Your task to perform on an android device: Open the web browser Image 0: 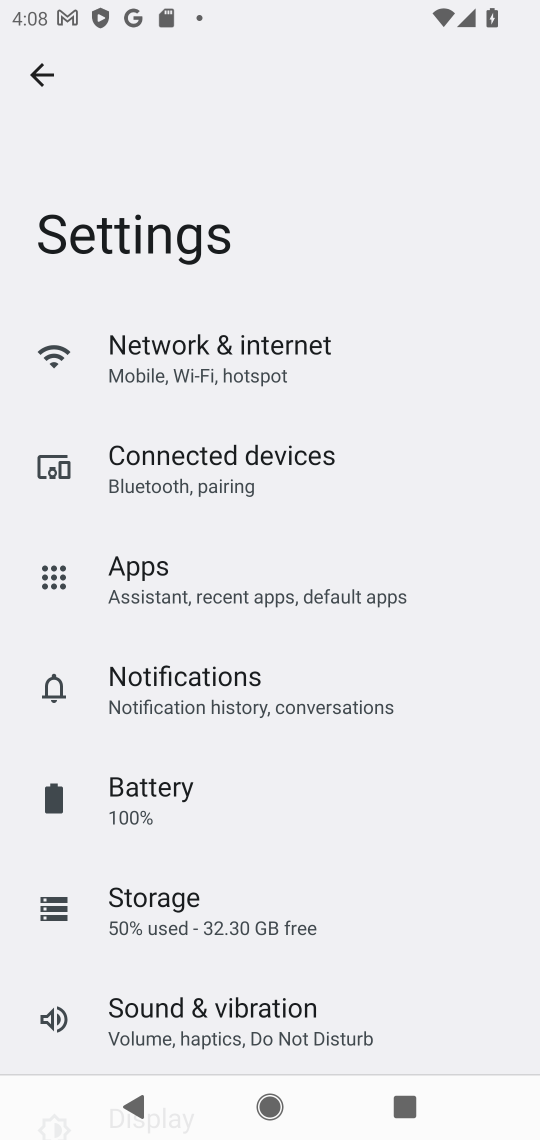
Step 0: press home button
Your task to perform on an android device: Open the web browser Image 1: 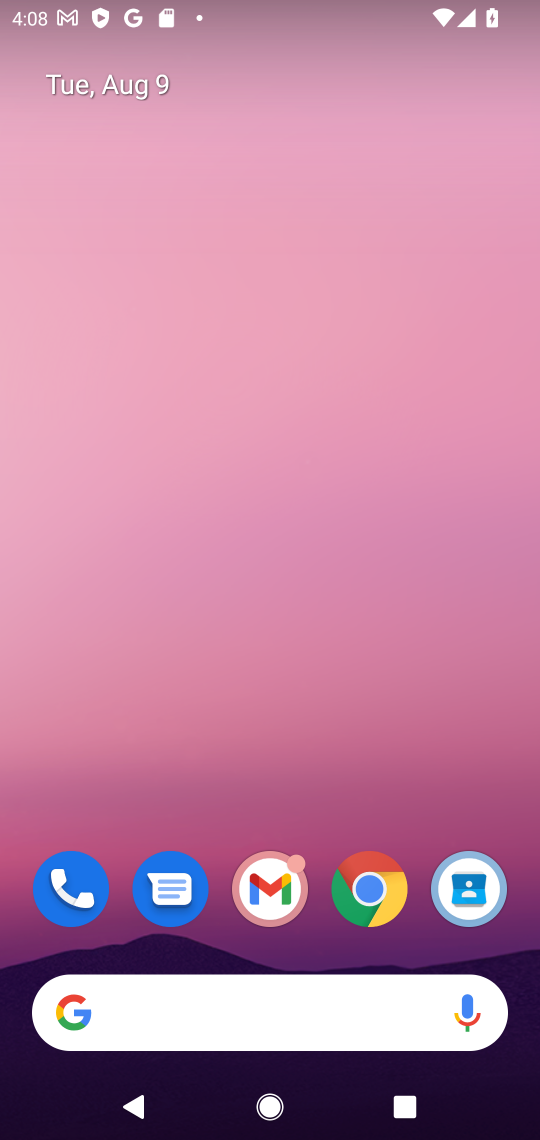
Step 1: click (338, 1004)
Your task to perform on an android device: Open the web browser Image 2: 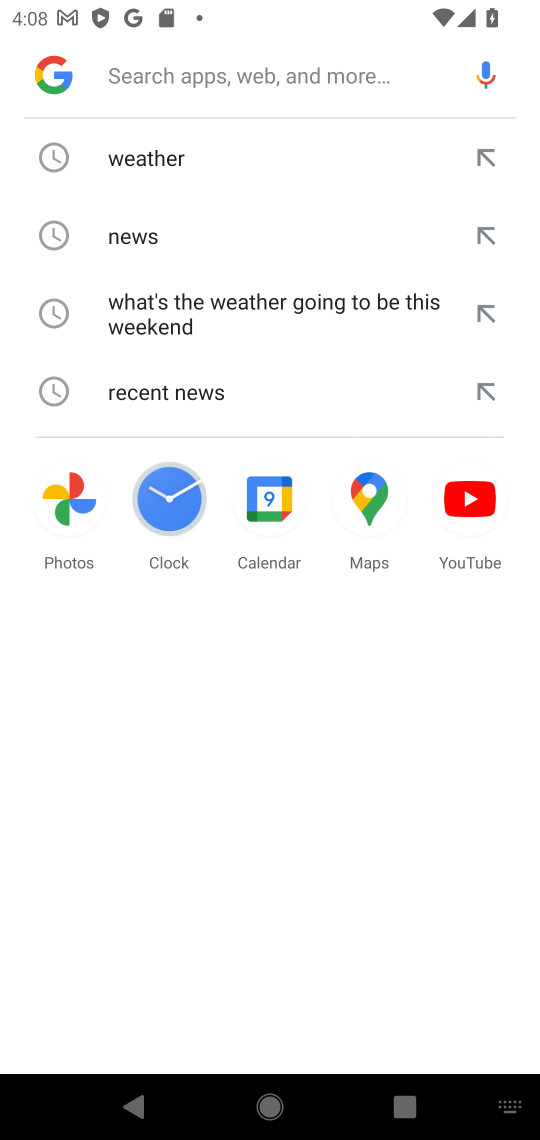
Step 2: task complete